Your task to perform on an android device: open app "eBay: The shopping marketplace" Image 0: 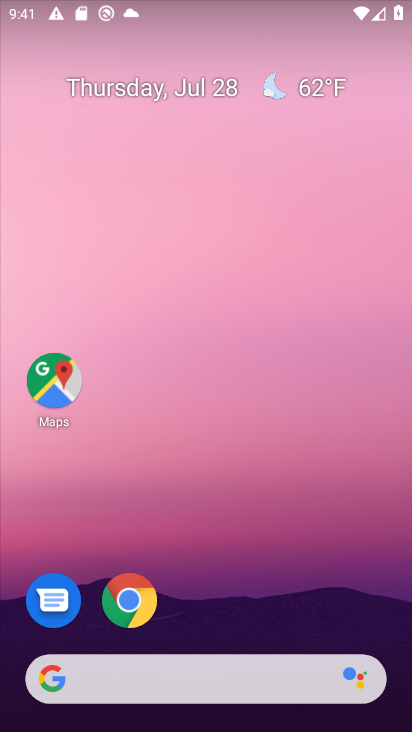
Step 0: drag from (225, 629) to (256, 1)
Your task to perform on an android device: open app "eBay: The shopping marketplace" Image 1: 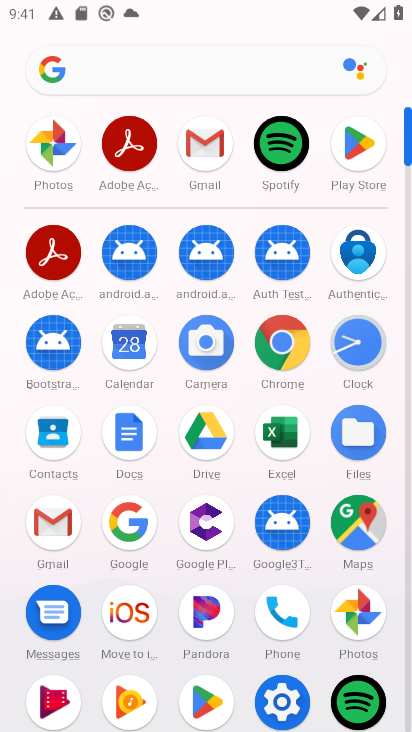
Step 1: click (358, 155)
Your task to perform on an android device: open app "eBay: The shopping marketplace" Image 2: 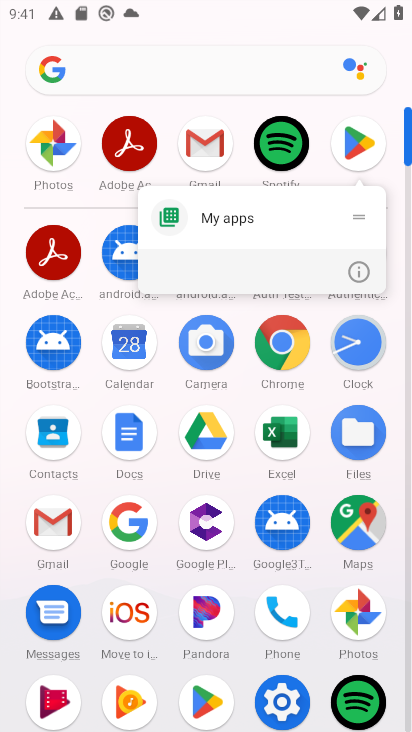
Step 2: click (358, 155)
Your task to perform on an android device: open app "eBay: The shopping marketplace" Image 3: 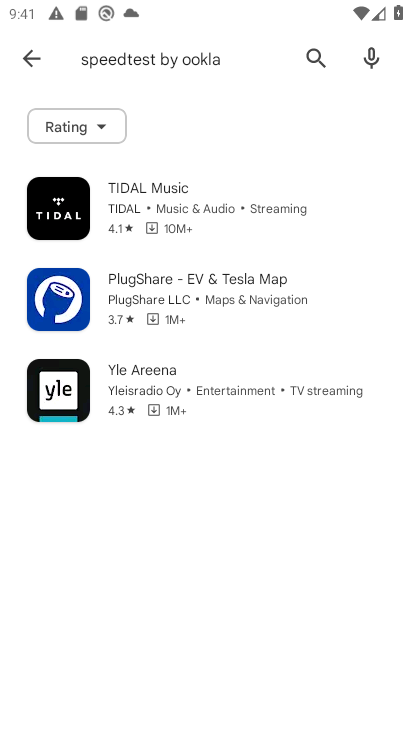
Step 3: click (315, 57)
Your task to perform on an android device: open app "eBay: The shopping marketplace" Image 4: 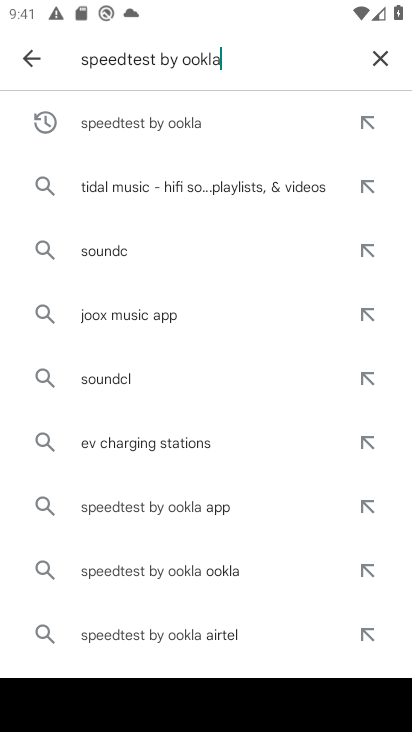
Step 4: click (374, 65)
Your task to perform on an android device: open app "eBay: The shopping marketplace" Image 5: 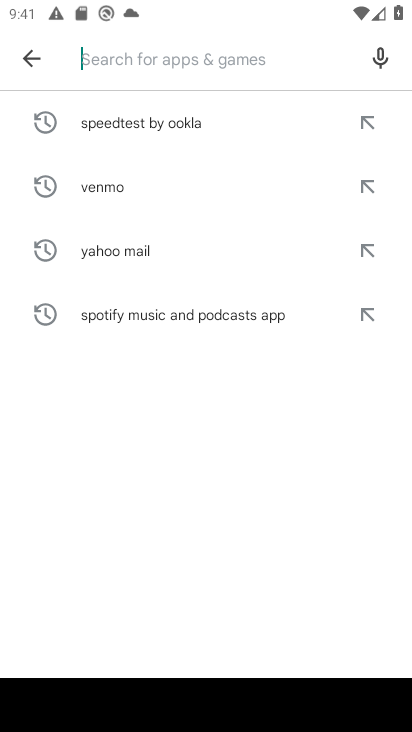
Step 5: type "eBay: The shopping marketplace"
Your task to perform on an android device: open app "eBay: The shopping marketplace" Image 6: 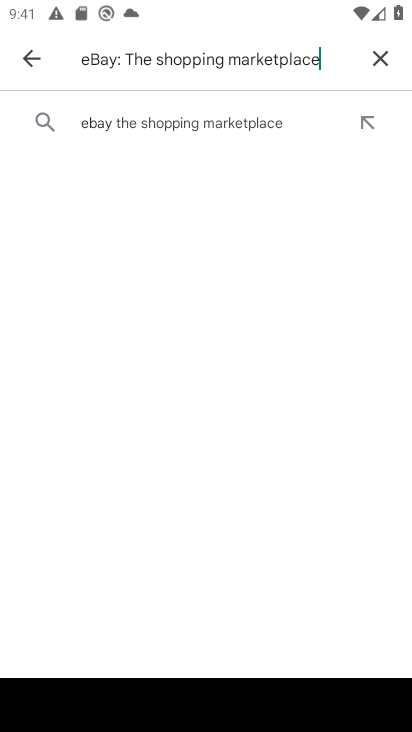
Step 6: click (156, 122)
Your task to perform on an android device: open app "eBay: The shopping marketplace" Image 7: 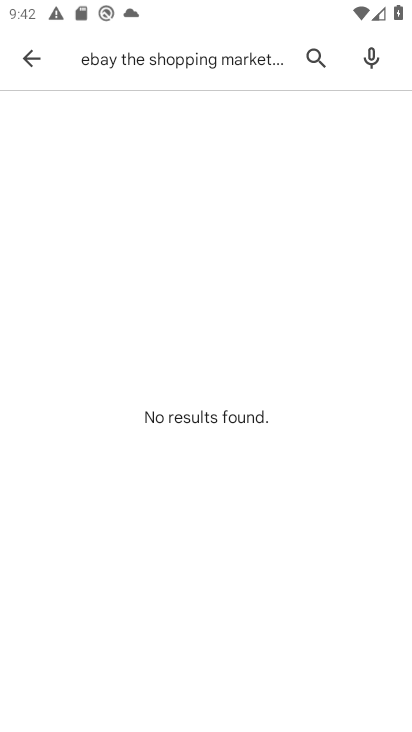
Step 7: task complete